Your task to perform on an android device: What's the weather going to be tomorrow? Image 0: 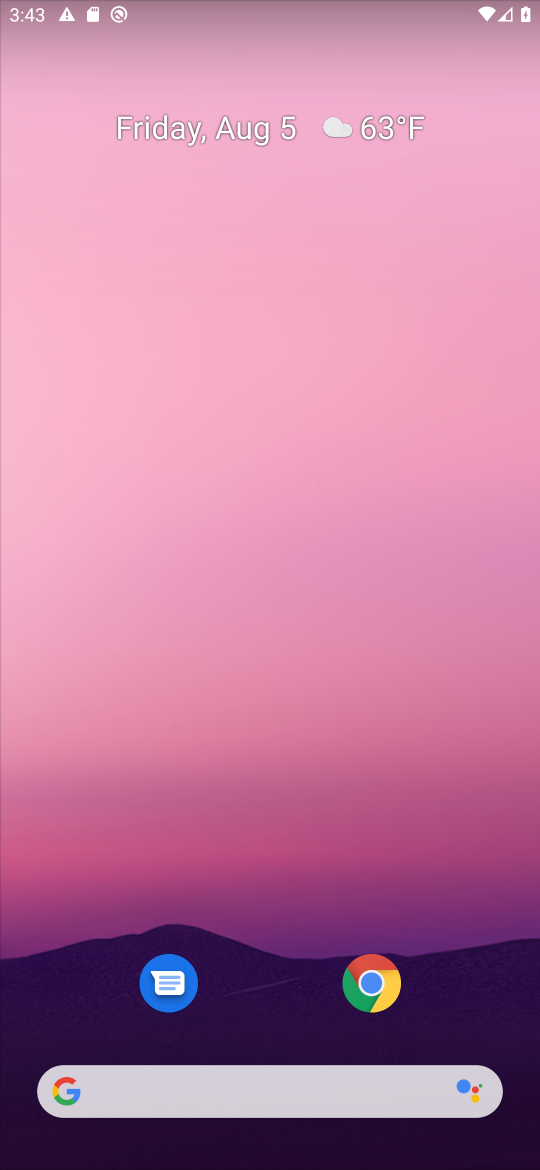
Step 0: click (262, 1072)
Your task to perform on an android device: What's the weather going to be tomorrow? Image 1: 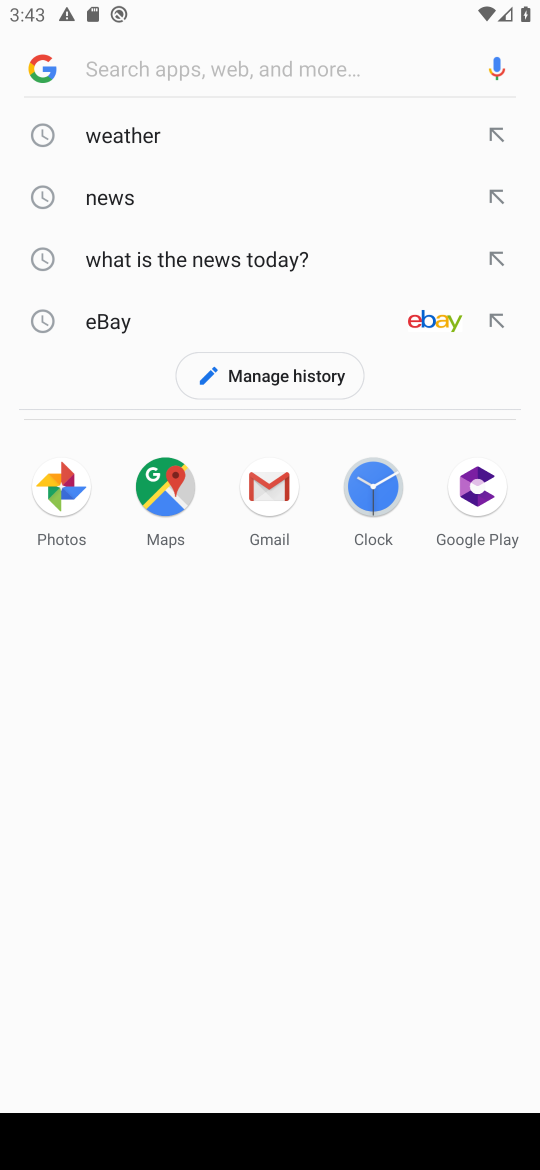
Step 1: type "what's the weather going to be tomorrow"
Your task to perform on an android device: What's the weather going to be tomorrow? Image 2: 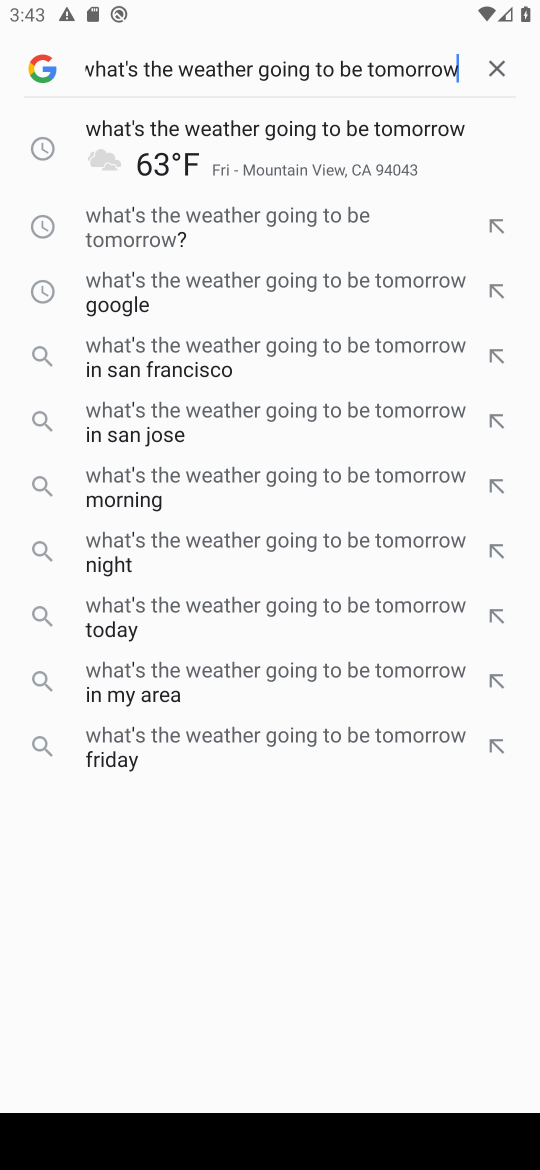
Step 2: click (340, 151)
Your task to perform on an android device: What's the weather going to be tomorrow? Image 3: 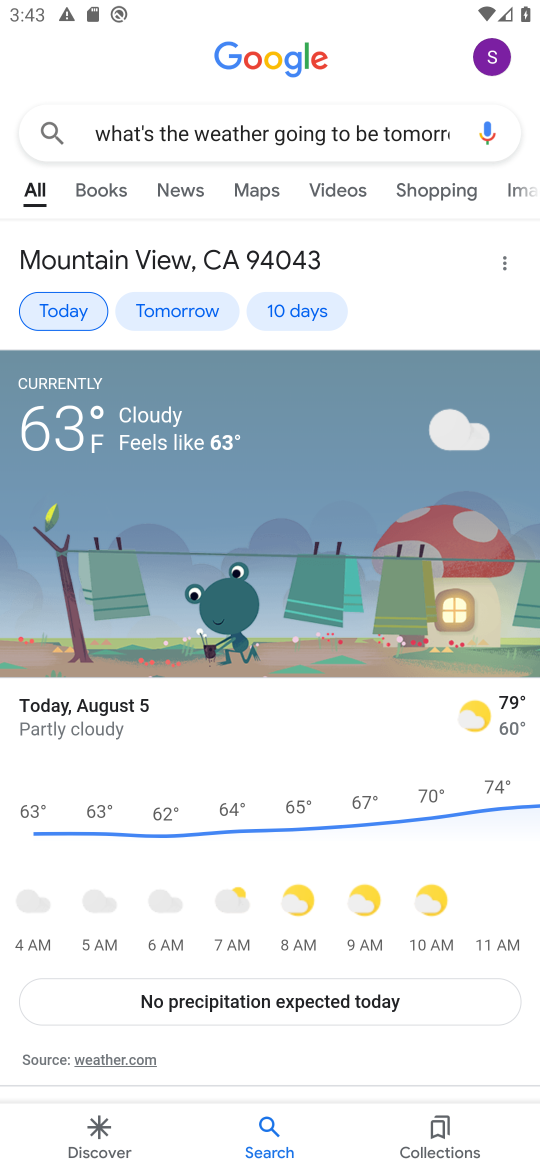
Step 3: click (194, 310)
Your task to perform on an android device: What's the weather going to be tomorrow? Image 4: 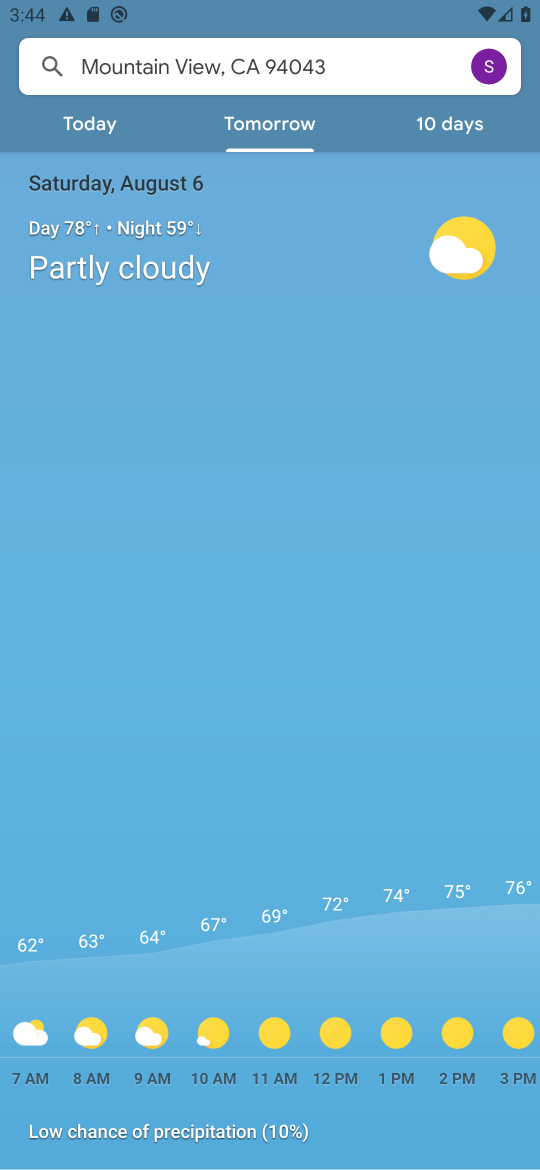
Step 4: task complete